Your task to perform on an android device: change the clock style Image 0: 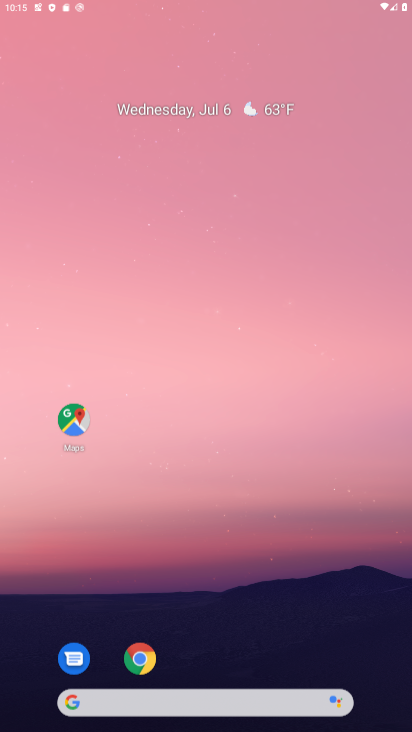
Step 0: drag from (132, 177) to (206, 394)
Your task to perform on an android device: change the clock style Image 1: 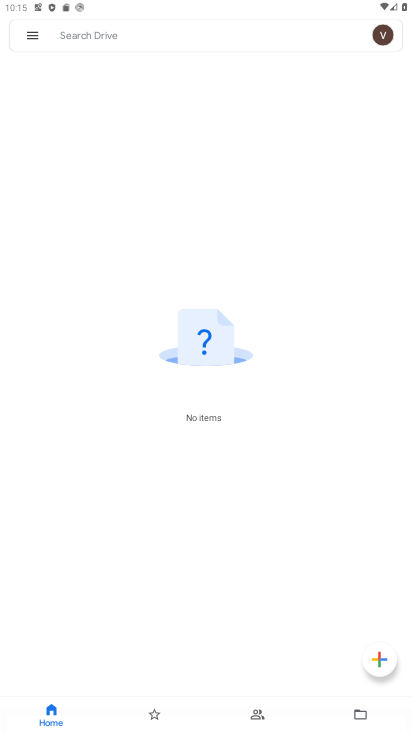
Step 1: press home button
Your task to perform on an android device: change the clock style Image 2: 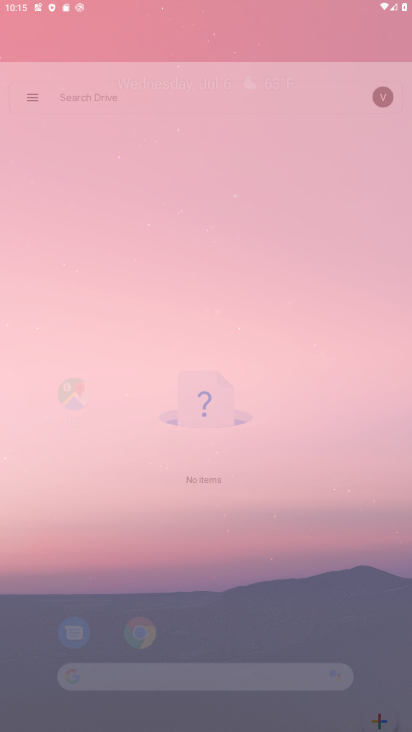
Step 2: drag from (165, 578) to (208, 85)
Your task to perform on an android device: change the clock style Image 3: 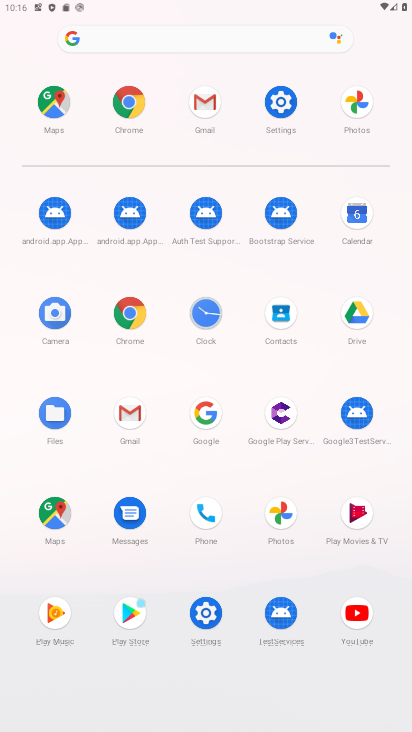
Step 3: click (193, 308)
Your task to perform on an android device: change the clock style Image 4: 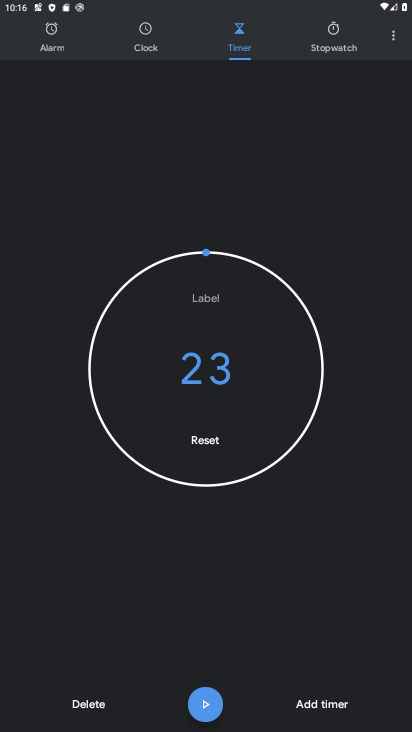
Step 4: click (193, 308)
Your task to perform on an android device: change the clock style Image 5: 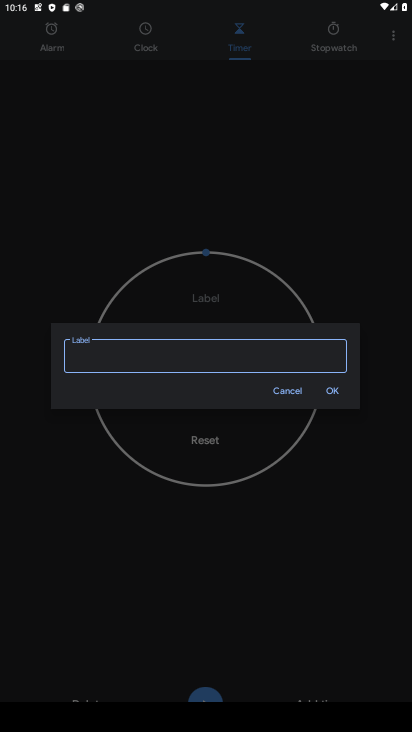
Step 5: click (292, 391)
Your task to perform on an android device: change the clock style Image 6: 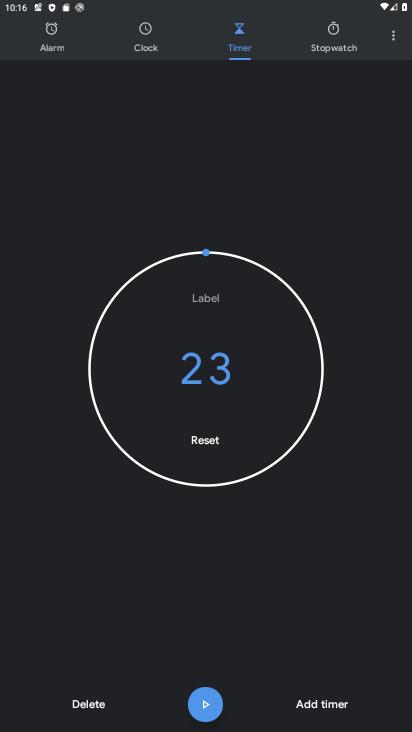
Step 6: click (389, 34)
Your task to perform on an android device: change the clock style Image 7: 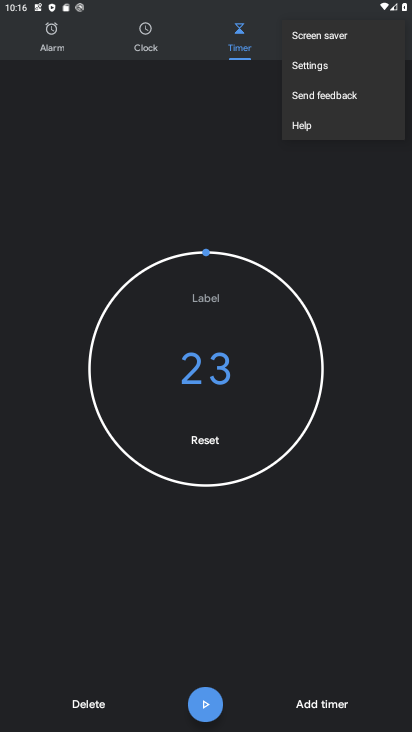
Step 7: click (339, 68)
Your task to perform on an android device: change the clock style Image 8: 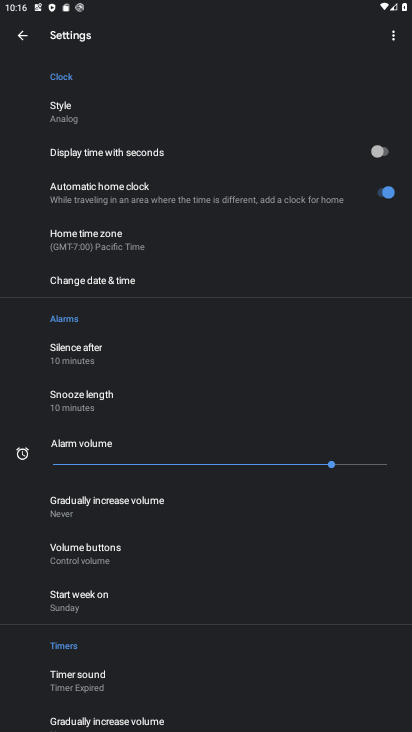
Step 8: drag from (314, 330) to (356, 159)
Your task to perform on an android device: change the clock style Image 9: 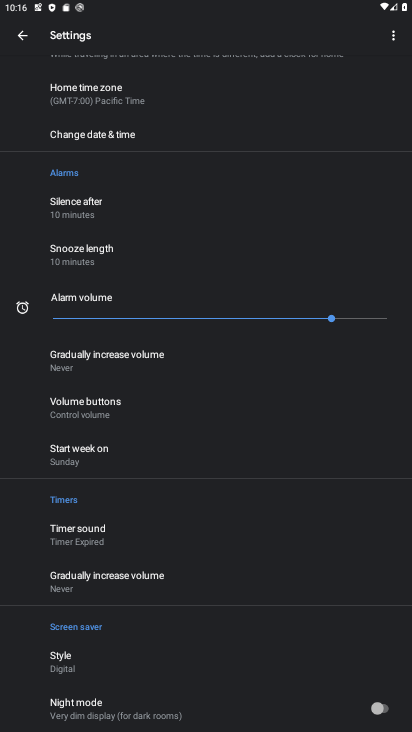
Step 9: drag from (156, 630) to (335, 112)
Your task to perform on an android device: change the clock style Image 10: 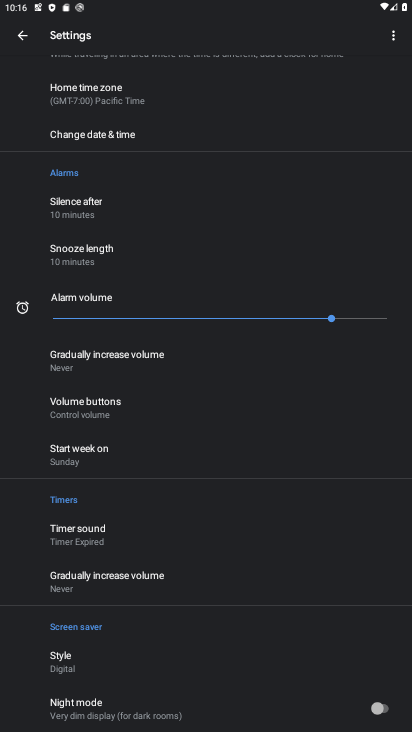
Step 10: drag from (260, 141) to (382, 723)
Your task to perform on an android device: change the clock style Image 11: 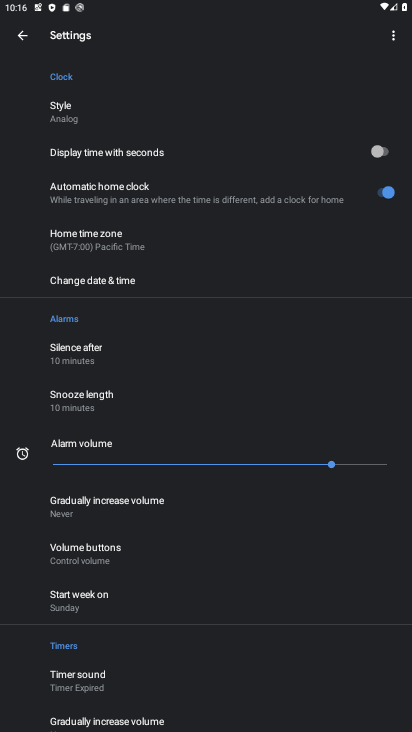
Step 11: drag from (177, 257) to (272, 731)
Your task to perform on an android device: change the clock style Image 12: 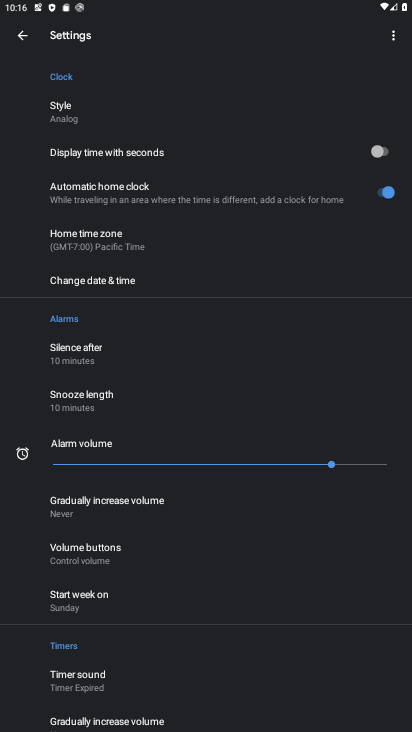
Step 12: click (78, 101)
Your task to perform on an android device: change the clock style Image 13: 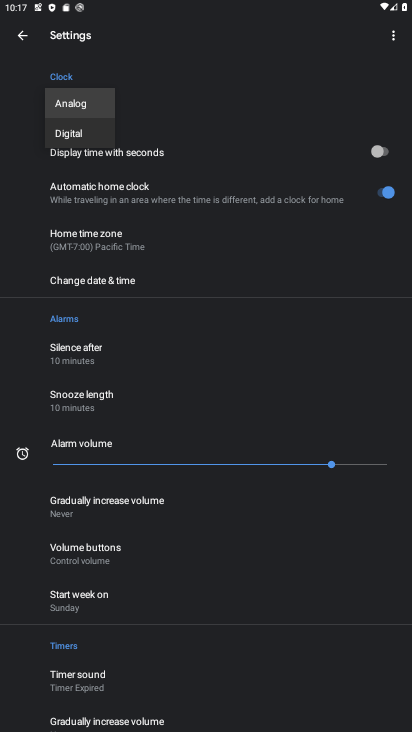
Step 13: click (74, 125)
Your task to perform on an android device: change the clock style Image 14: 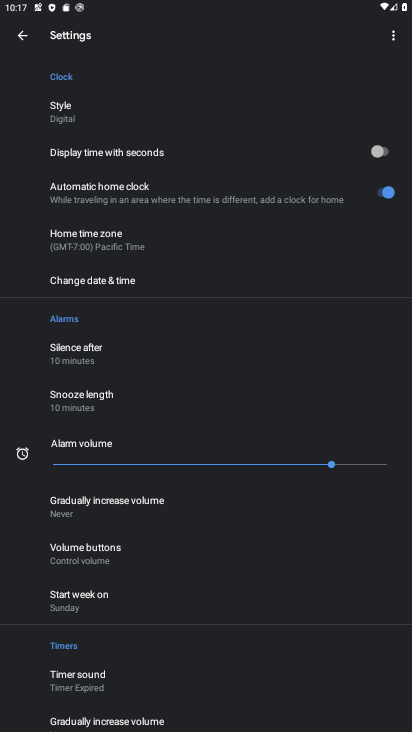
Step 14: task complete